Your task to perform on an android device: Go to privacy settings Image 0: 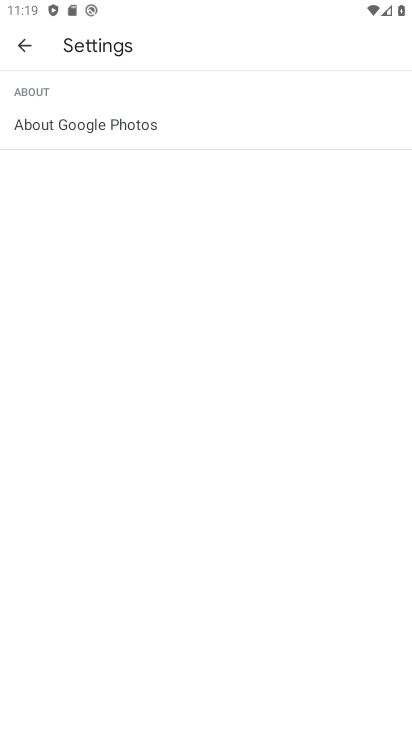
Step 0: press back button
Your task to perform on an android device: Go to privacy settings Image 1: 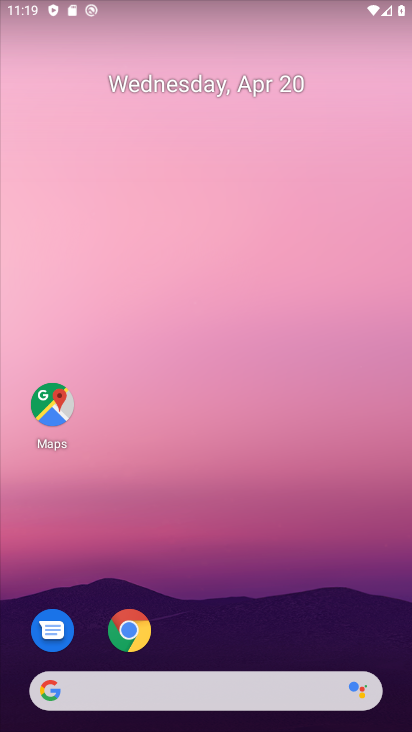
Step 1: drag from (193, 669) to (298, 126)
Your task to perform on an android device: Go to privacy settings Image 2: 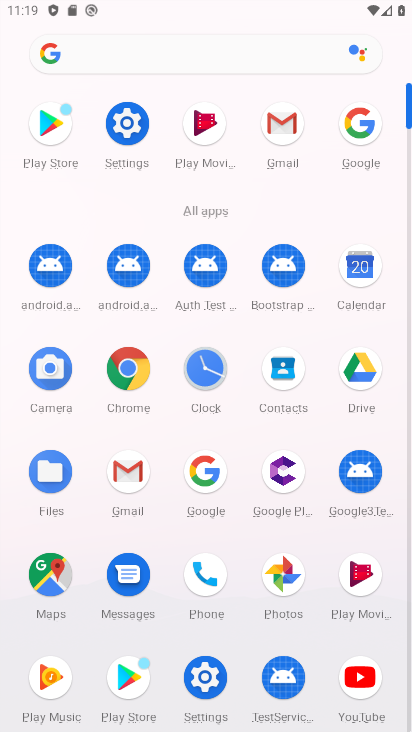
Step 2: click (139, 375)
Your task to perform on an android device: Go to privacy settings Image 3: 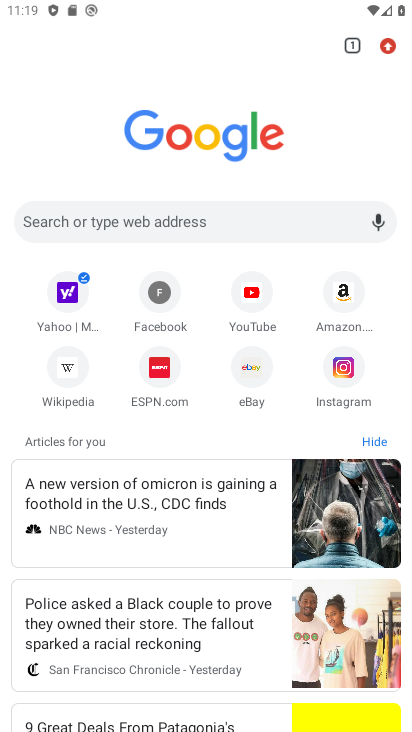
Step 3: drag from (391, 42) to (302, 422)
Your task to perform on an android device: Go to privacy settings Image 4: 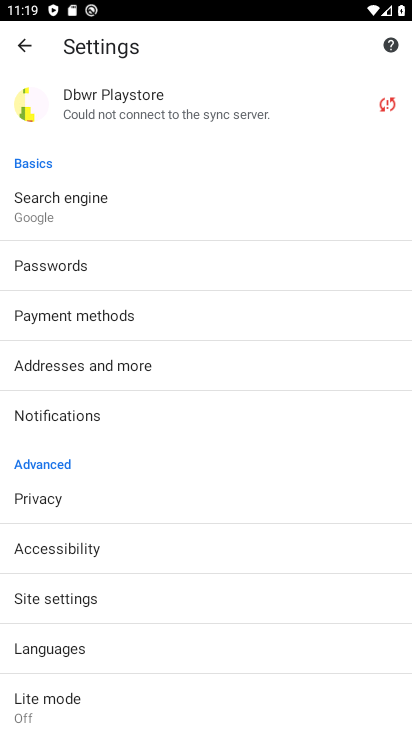
Step 4: click (134, 510)
Your task to perform on an android device: Go to privacy settings Image 5: 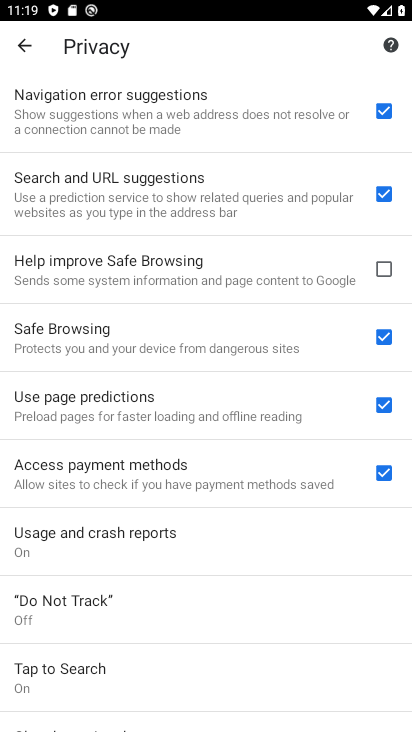
Step 5: task complete